Your task to perform on an android device: snooze an email in the gmail app Image 0: 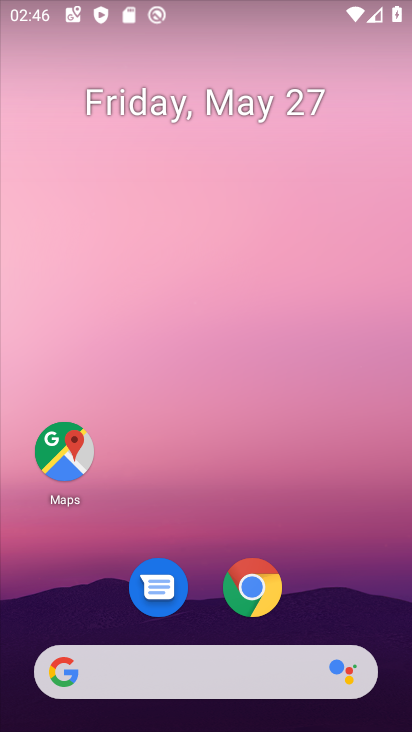
Step 0: press home button
Your task to perform on an android device: snooze an email in the gmail app Image 1: 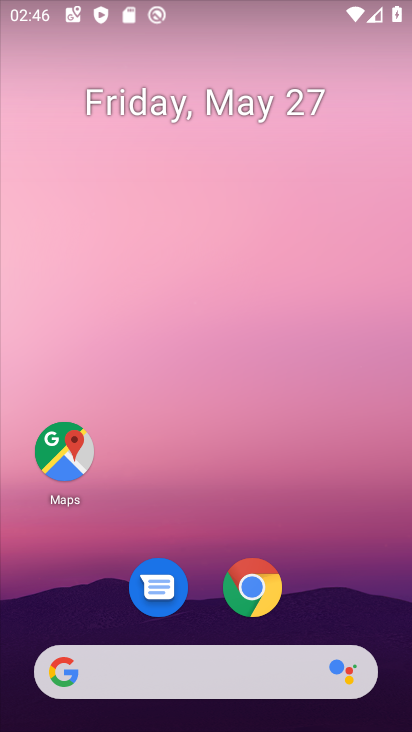
Step 1: drag from (340, 591) to (337, 216)
Your task to perform on an android device: snooze an email in the gmail app Image 2: 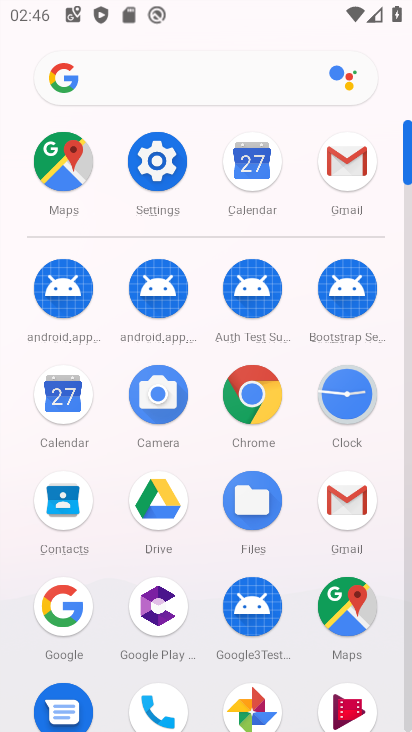
Step 2: click (337, 169)
Your task to perform on an android device: snooze an email in the gmail app Image 3: 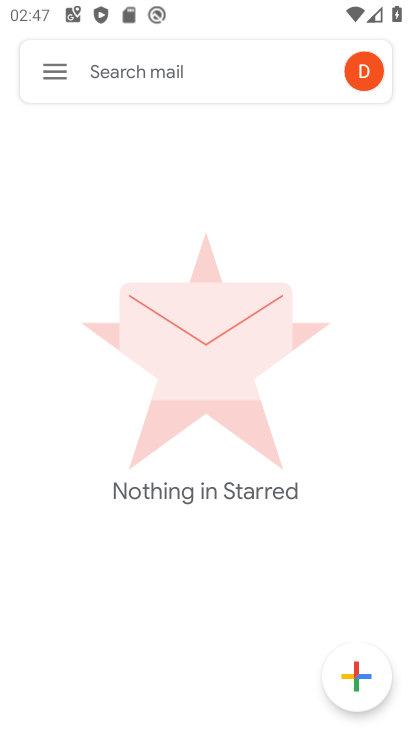
Step 3: click (55, 89)
Your task to perform on an android device: snooze an email in the gmail app Image 4: 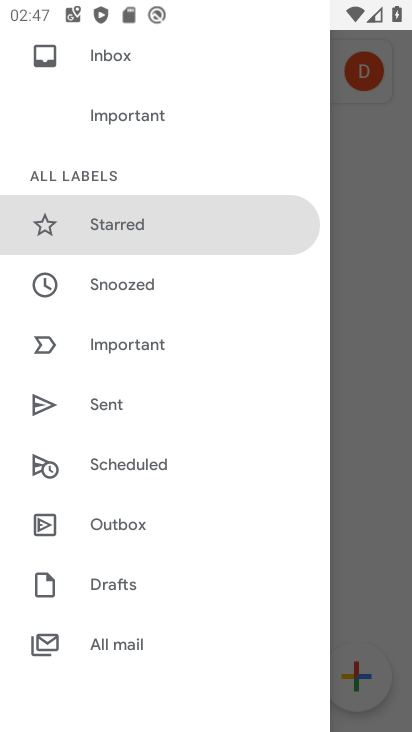
Step 4: click (114, 648)
Your task to perform on an android device: snooze an email in the gmail app Image 5: 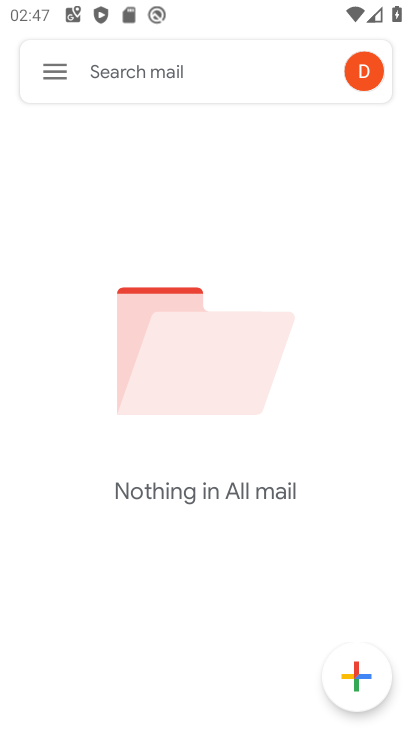
Step 5: task complete